Your task to perform on an android device: Open the map Image 0: 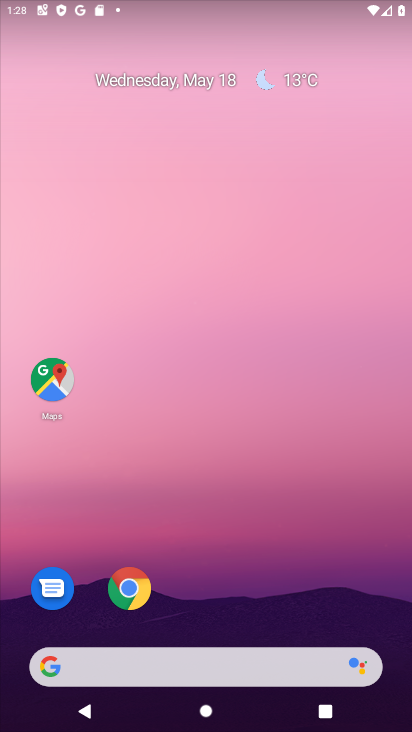
Step 0: drag from (197, 642) to (230, 159)
Your task to perform on an android device: Open the map Image 1: 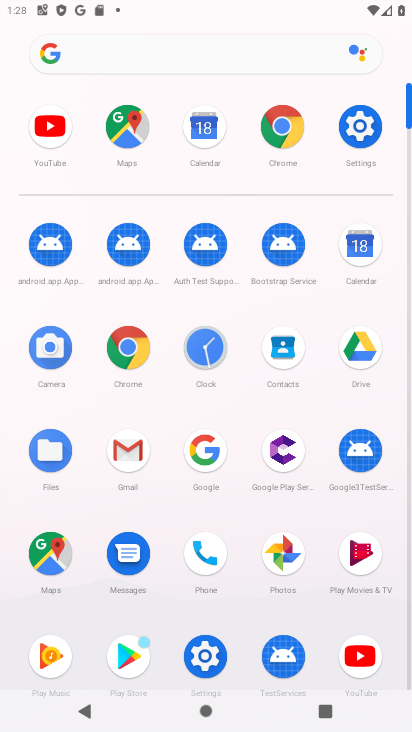
Step 1: click (51, 546)
Your task to perform on an android device: Open the map Image 2: 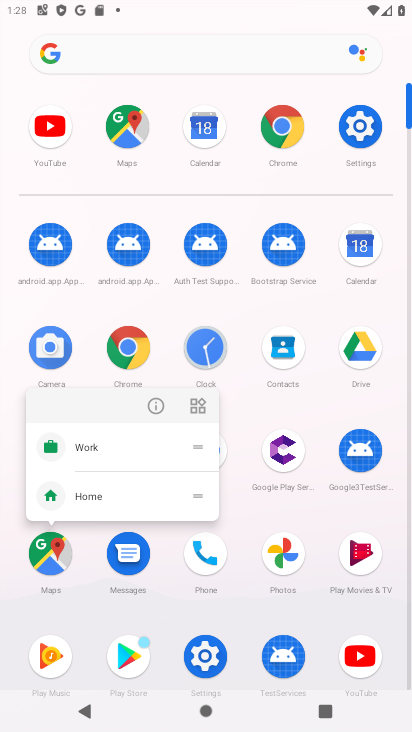
Step 2: click (156, 403)
Your task to perform on an android device: Open the map Image 3: 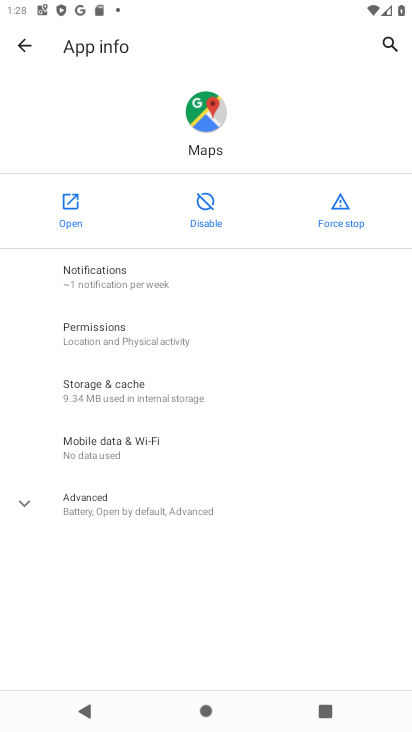
Step 3: click (59, 214)
Your task to perform on an android device: Open the map Image 4: 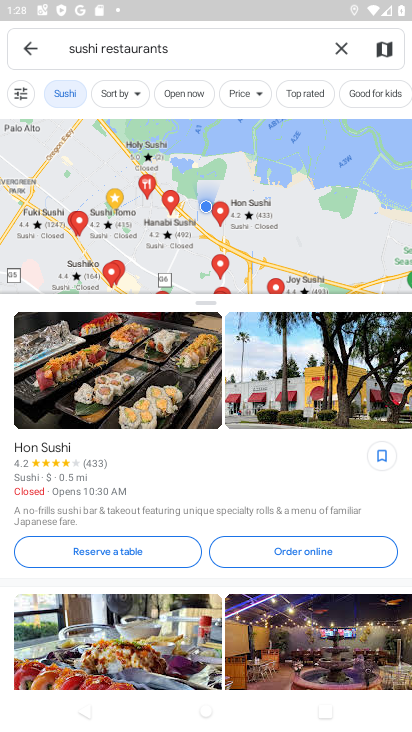
Step 4: task complete